Your task to perform on an android device: Open the Play Movies app and select the watchlist tab. Image 0: 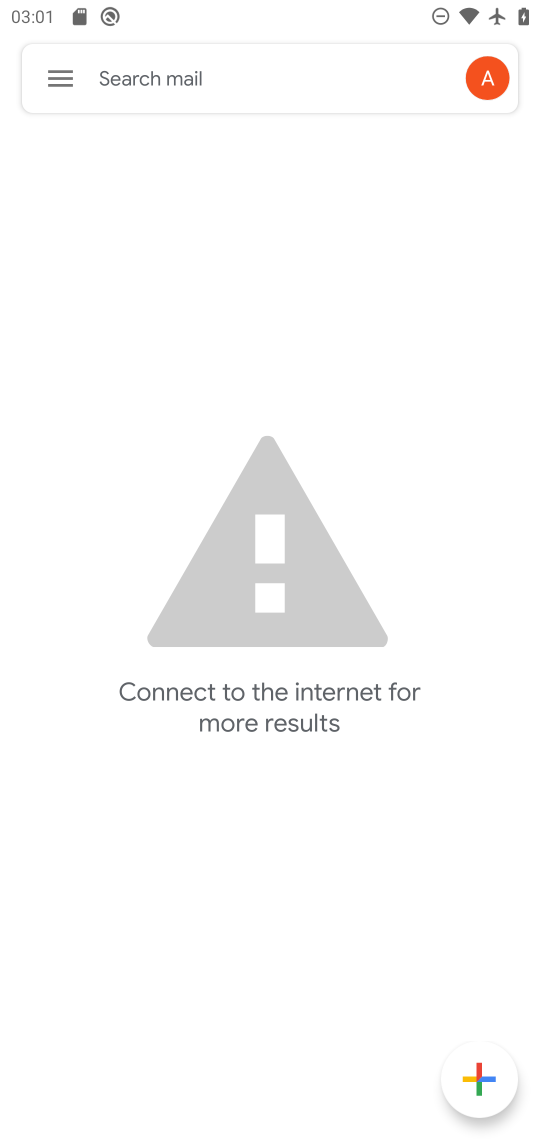
Step 0: press home button
Your task to perform on an android device: Open the Play Movies app and select the watchlist tab. Image 1: 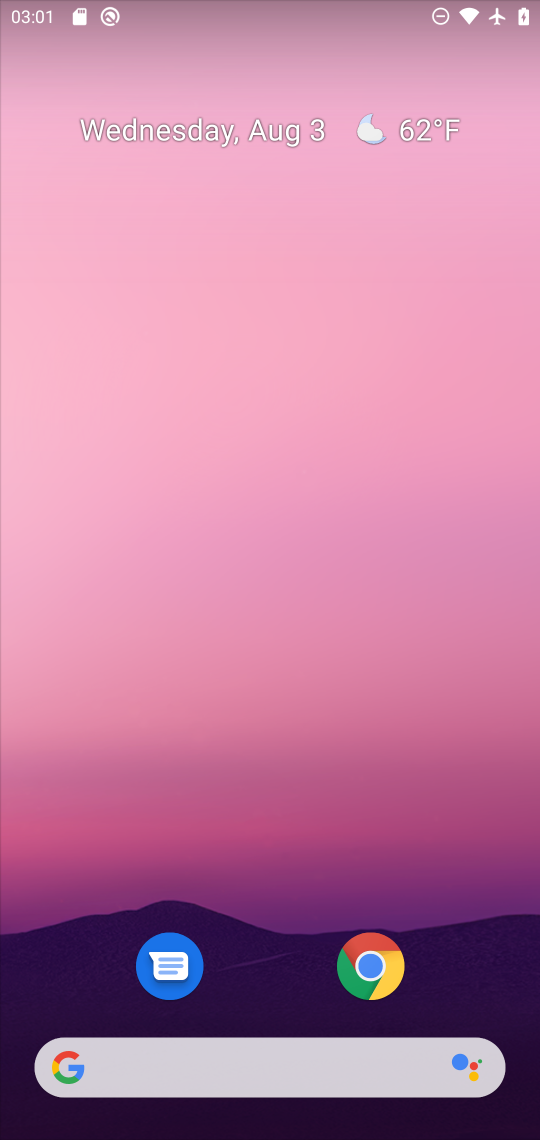
Step 1: drag from (254, 915) to (339, 294)
Your task to perform on an android device: Open the Play Movies app and select the watchlist tab. Image 2: 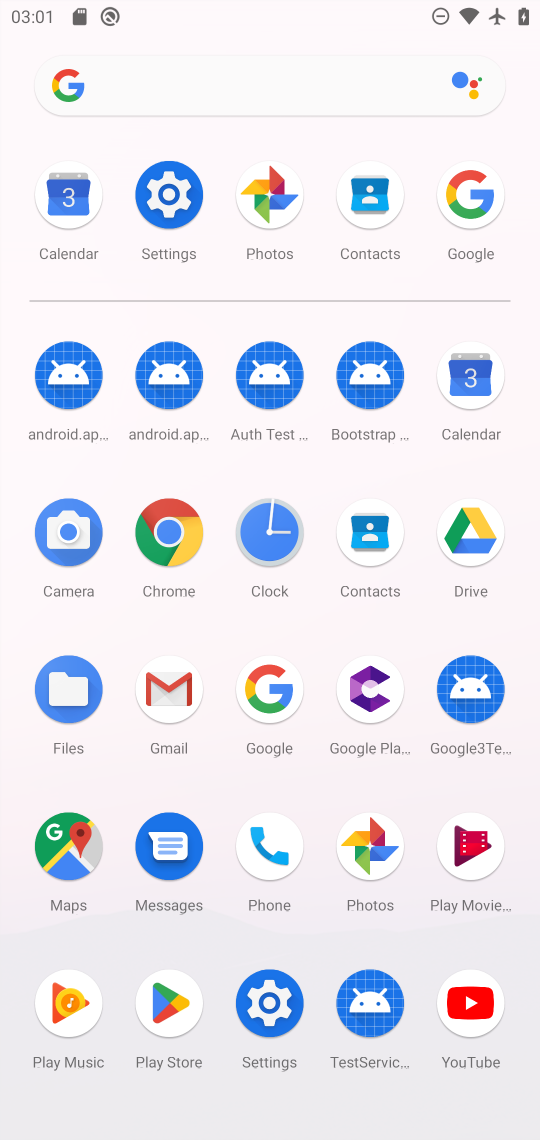
Step 2: click (177, 202)
Your task to perform on an android device: Open the Play Movies app and select the watchlist tab. Image 3: 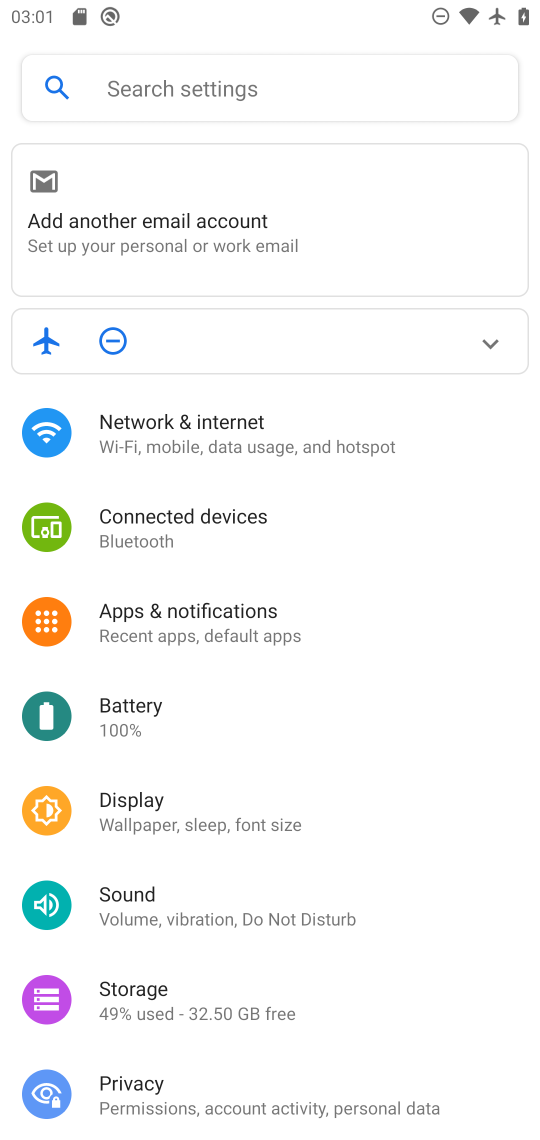
Step 3: click (167, 442)
Your task to perform on an android device: Open the Play Movies app and select the watchlist tab. Image 4: 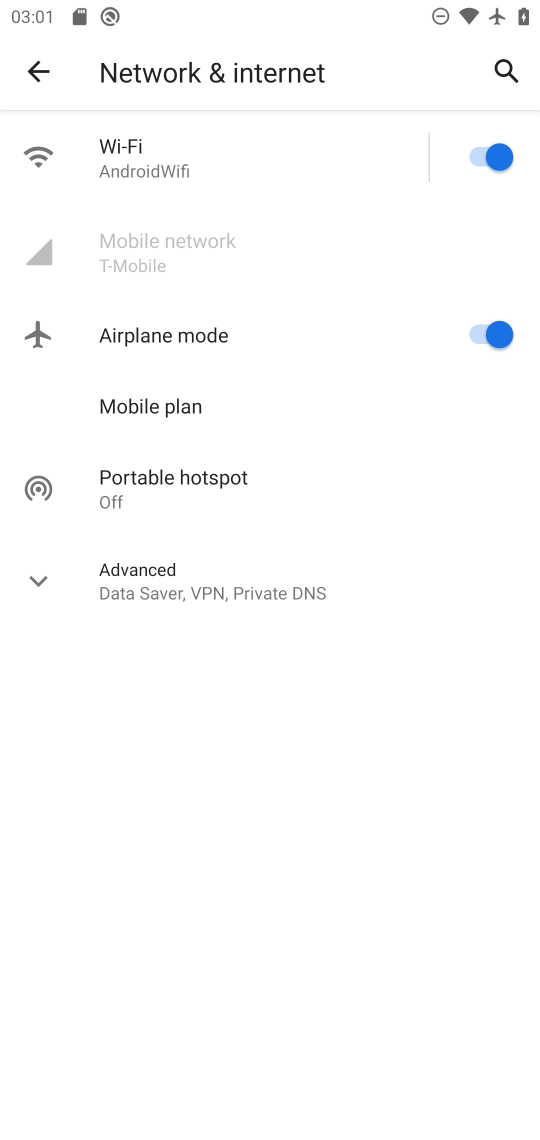
Step 4: task complete